Your task to perform on an android device: Open the calendar app, open the side menu, and click the "Day" option Image 0: 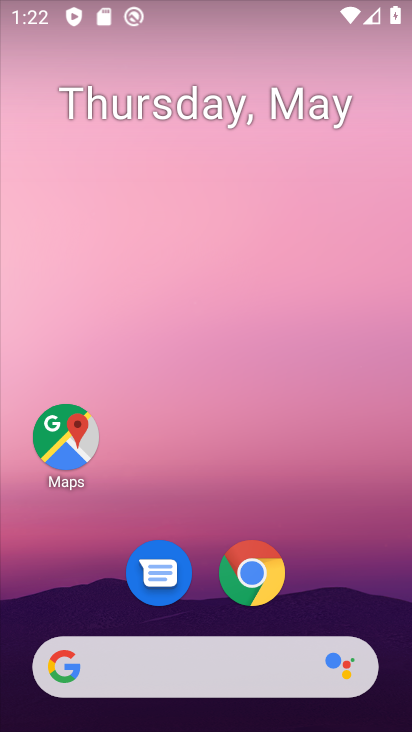
Step 0: drag from (63, 442) to (276, 475)
Your task to perform on an android device: Open the calendar app, open the side menu, and click the "Day" option Image 1: 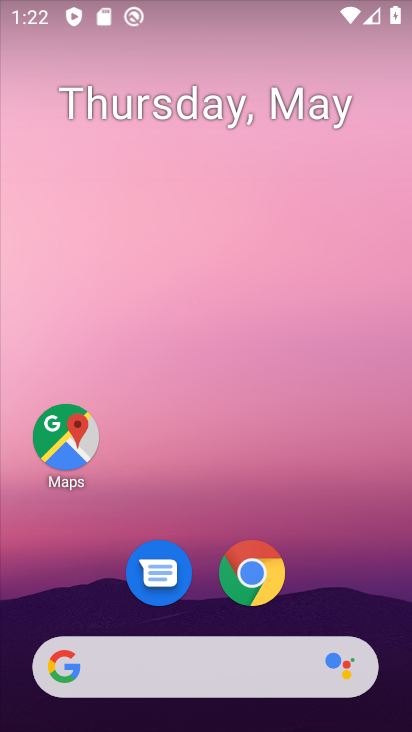
Step 1: drag from (330, 468) to (350, 24)
Your task to perform on an android device: Open the calendar app, open the side menu, and click the "Day" option Image 2: 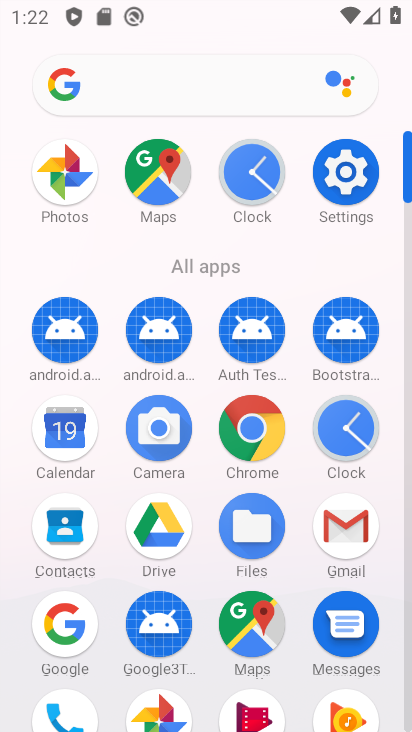
Step 2: click (61, 443)
Your task to perform on an android device: Open the calendar app, open the side menu, and click the "Day" option Image 3: 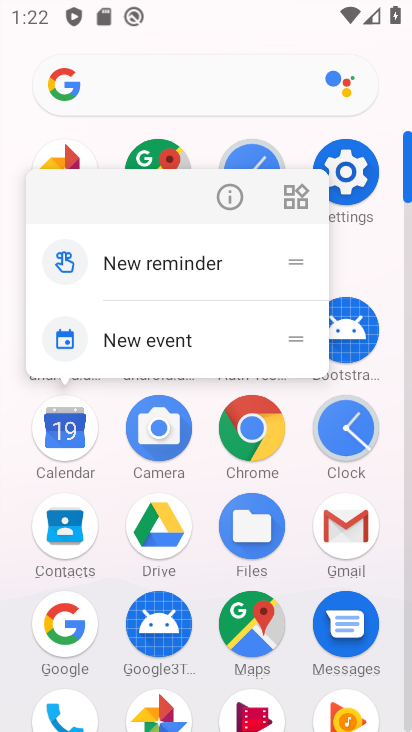
Step 3: click (59, 529)
Your task to perform on an android device: Open the calendar app, open the side menu, and click the "Day" option Image 4: 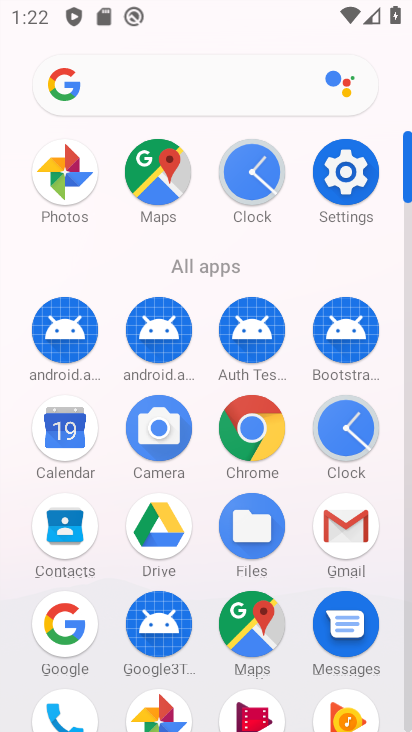
Step 4: click (57, 534)
Your task to perform on an android device: Open the calendar app, open the side menu, and click the "Day" option Image 5: 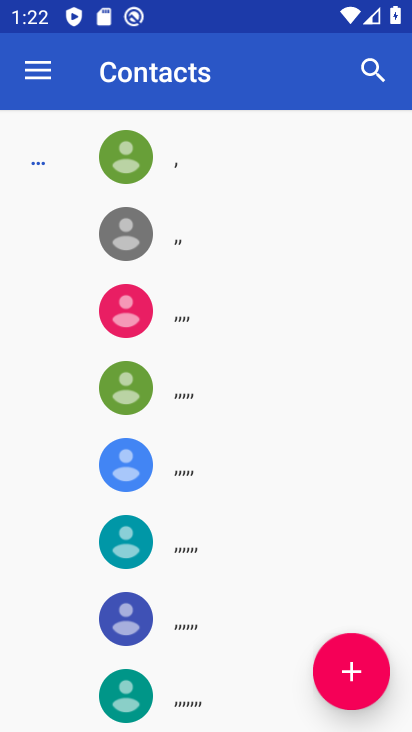
Step 5: press back button
Your task to perform on an android device: Open the calendar app, open the side menu, and click the "Day" option Image 6: 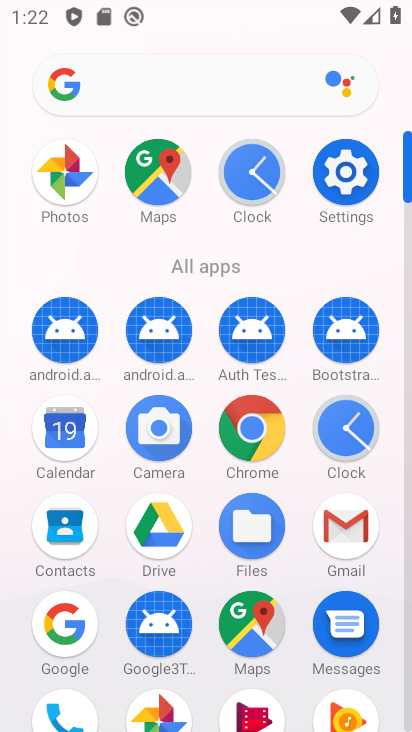
Step 6: click (58, 431)
Your task to perform on an android device: Open the calendar app, open the side menu, and click the "Day" option Image 7: 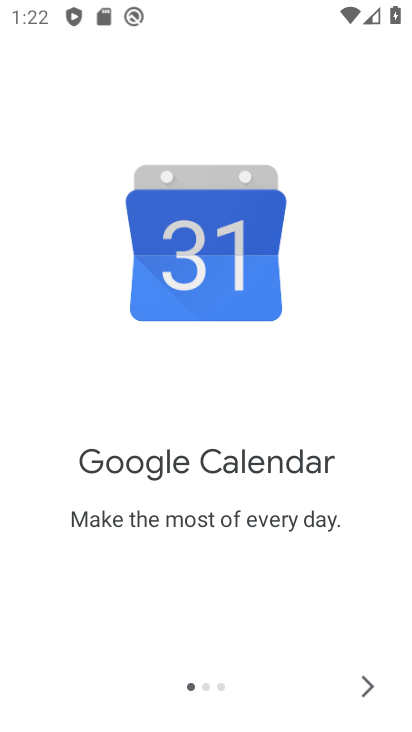
Step 7: click (366, 679)
Your task to perform on an android device: Open the calendar app, open the side menu, and click the "Day" option Image 8: 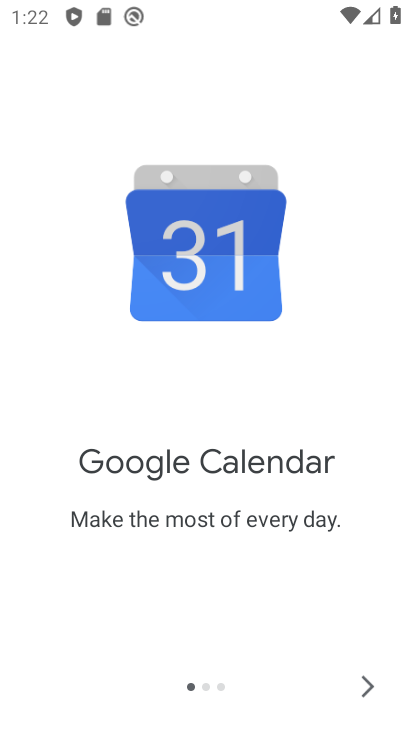
Step 8: click (366, 679)
Your task to perform on an android device: Open the calendar app, open the side menu, and click the "Day" option Image 9: 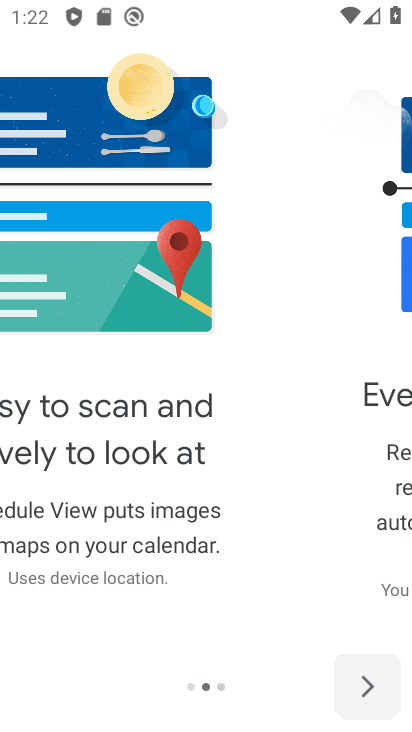
Step 9: click (366, 679)
Your task to perform on an android device: Open the calendar app, open the side menu, and click the "Day" option Image 10: 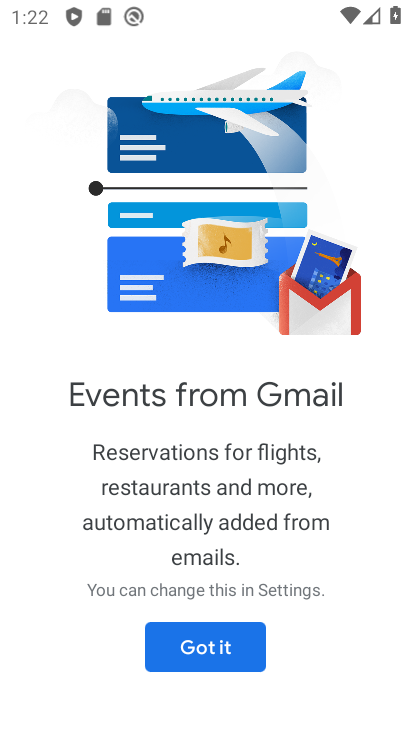
Step 10: click (366, 679)
Your task to perform on an android device: Open the calendar app, open the side menu, and click the "Day" option Image 11: 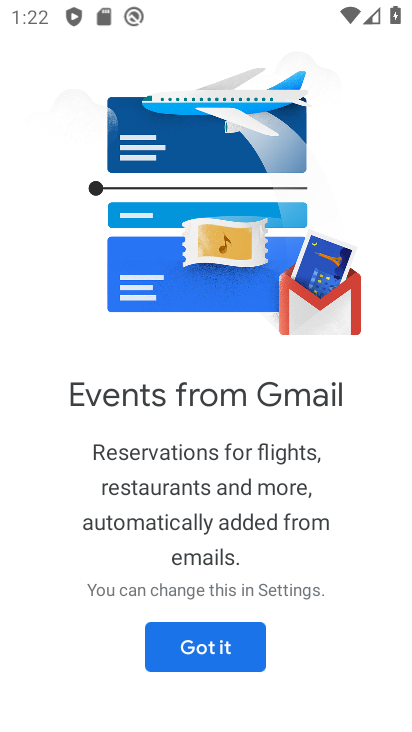
Step 11: click (366, 679)
Your task to perform on an android device: Open the calendar app, open the side menu, and click the "Day" option Image 12: 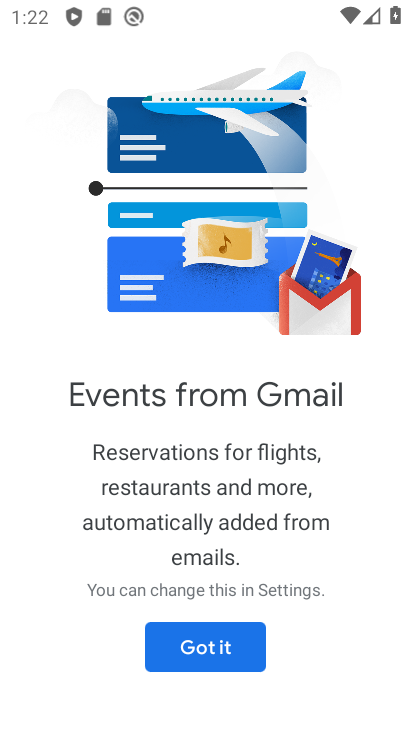
Step 12: click (210, 635)
Your task to perform on an android device: Open the calendar app, open the side menu, and click the "Day" option Image 13: 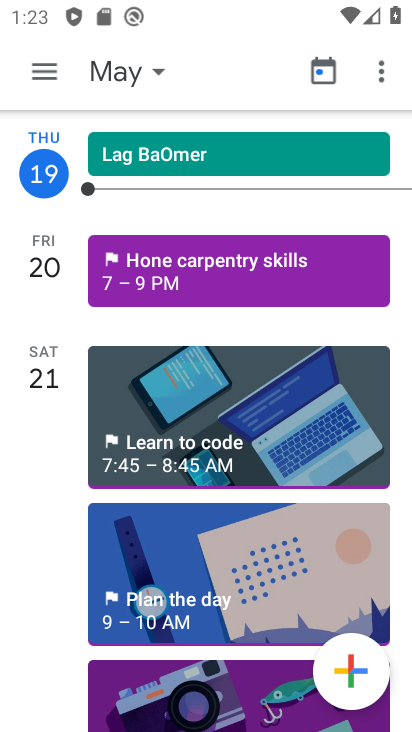
Step 13: click (43, 71)
Your task to perform on an android device: Open the calendar app, open the side menu, and click the "Day" option Image 14: 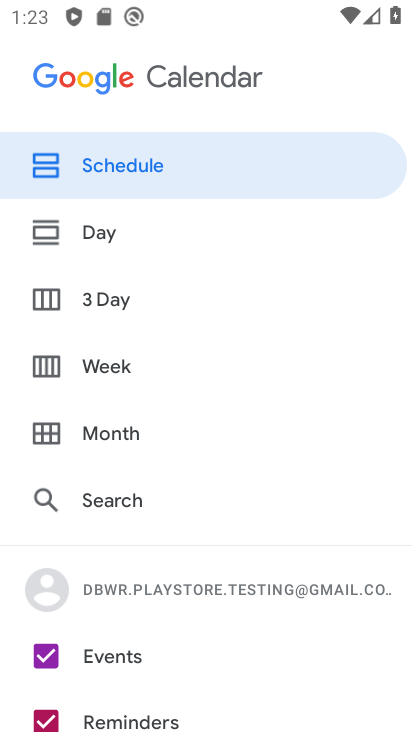
Step 14: click (87, 227)
Your task to perform on an android device: Open the calendar app, open the side menu, and click the "Day" option Image 15: 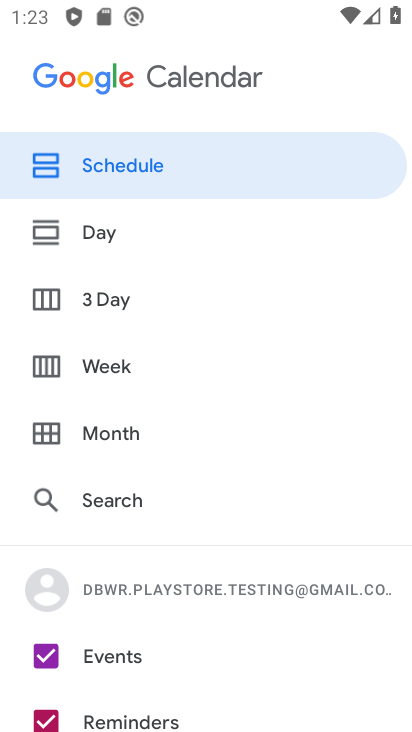
Step 15: click (90, 227)
Your task to perform on an android device: Open the calendar app, open the side menu, and click the "Day" option Image 16: 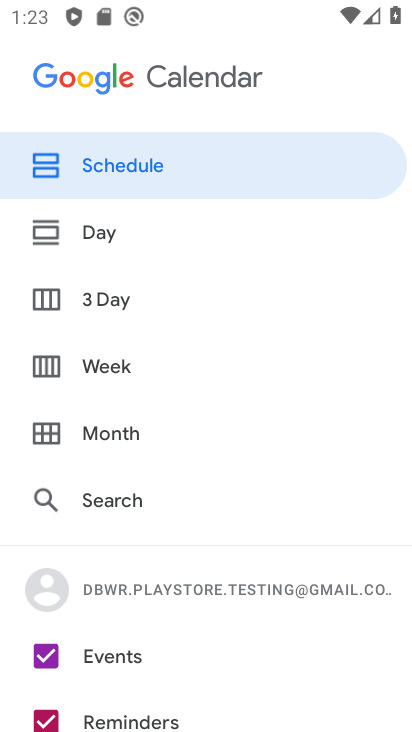
Step 16: click (71, 222)
Your task to perform on an android device: Open the calendar app, open the side menu, and click the "Day" option Image 17: 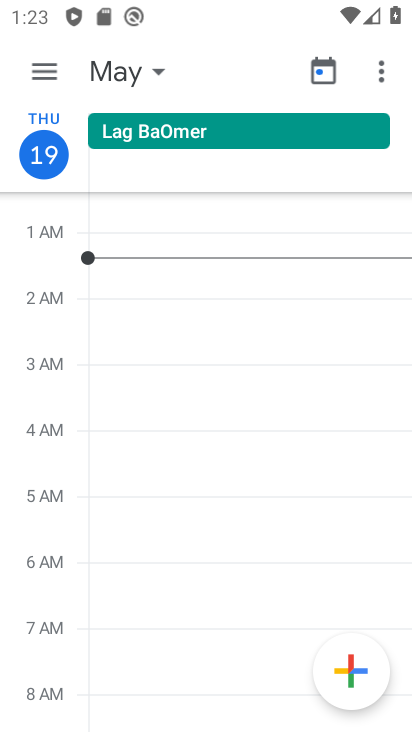
Step 17: task complete